Your task to perform on an android device: Open ESPN.com Image 0: 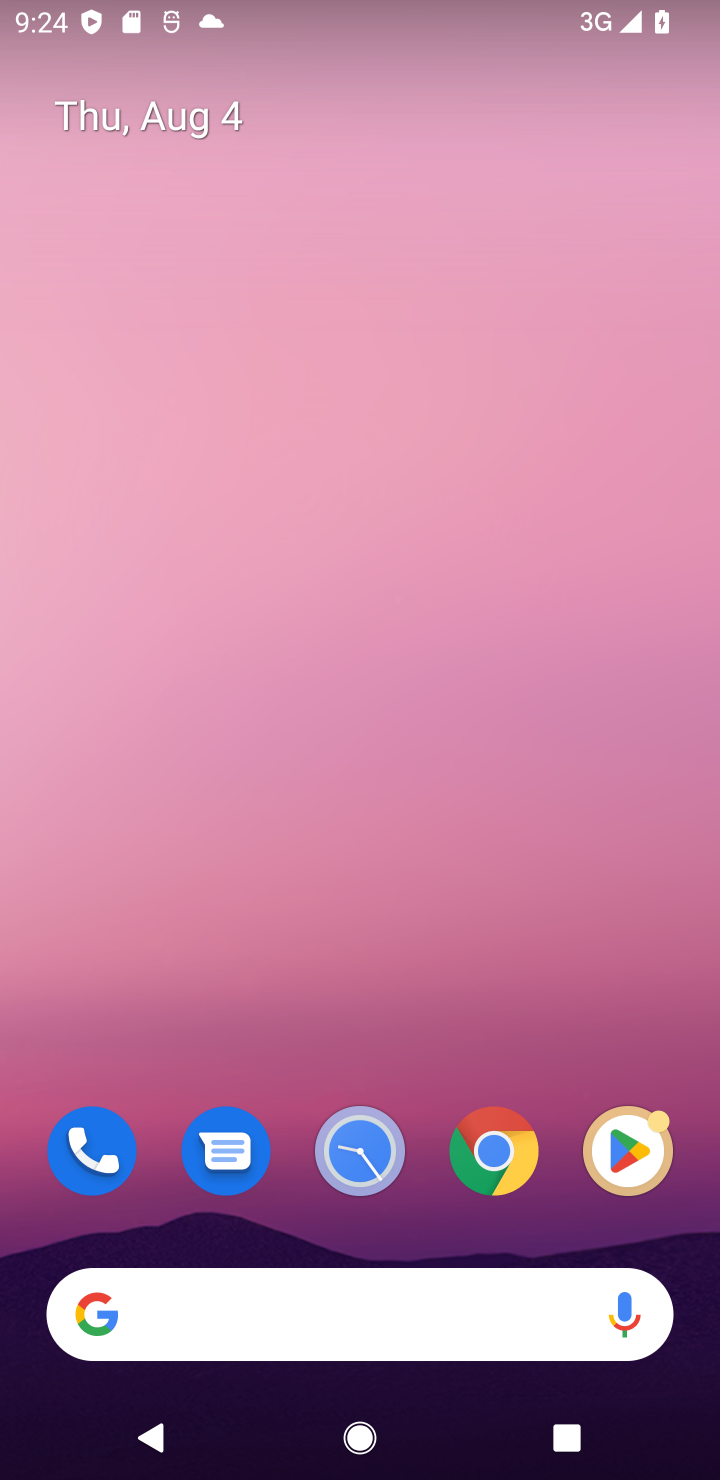
Step 0: click (478, 1138)
Your task to perform on an android device: Open ESPN.com Image 1: 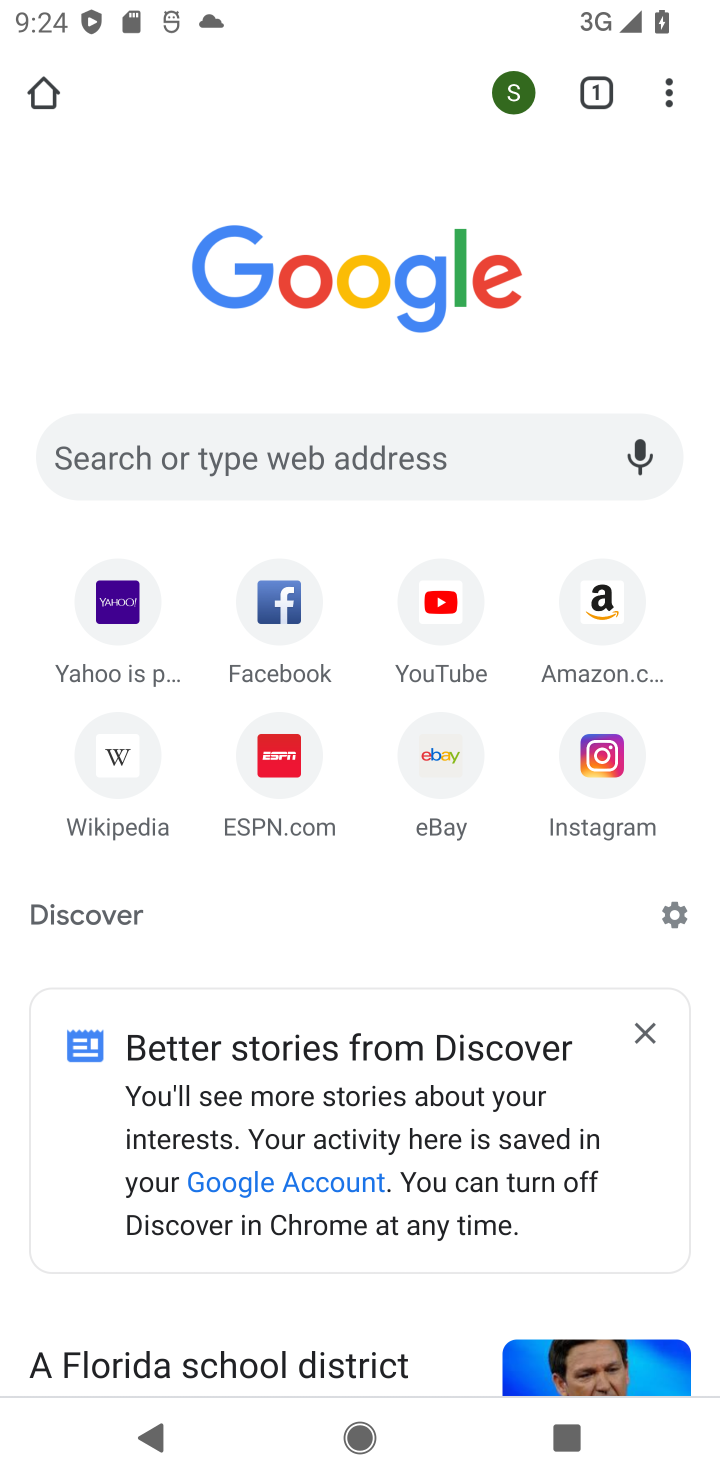
Step 1: click (277, 768)
Your task to perform on an android device: Open ESPN.com Image 2: 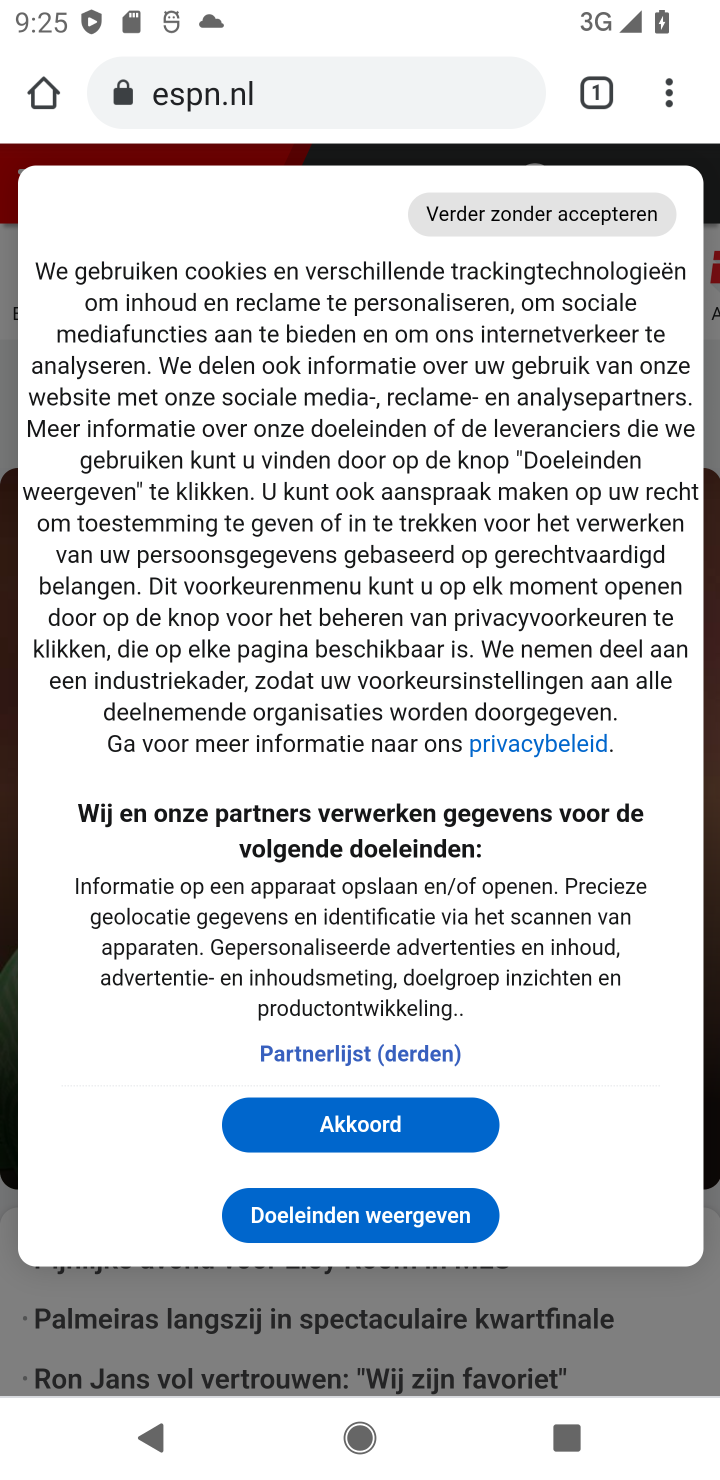
Step 2: task complete